Your task to perform on an android device: open app "HBO Max: Stream TV & Movies" (install if not already installed), go to login, and select forgot password Image 0: 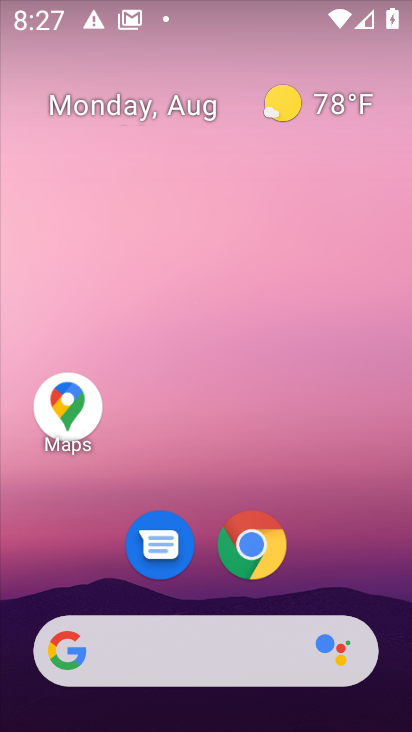
Step 0: press home button
Your task to perform on an android device: open app "HBO Max: Stream TV & Movies" (install if not already installed), go to login, and select forgot password Image 1: 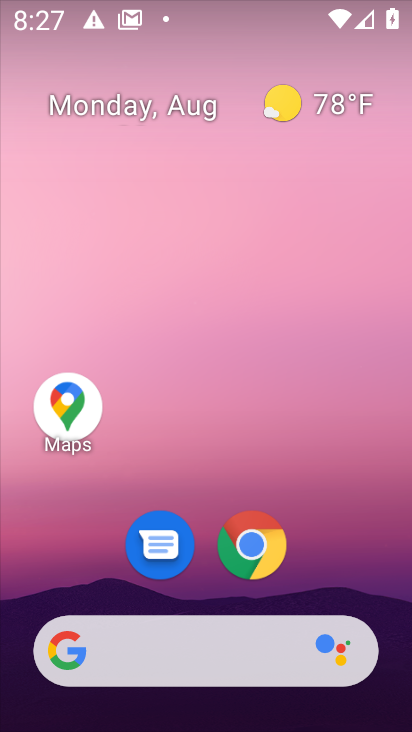
Step 1: drag from (360, 573) to (384, 114)
Your task to perform on an android device: open app "HBO Max: Stream TV & Movies" (install if not already installed), go to login, and select forgot password Image 2: 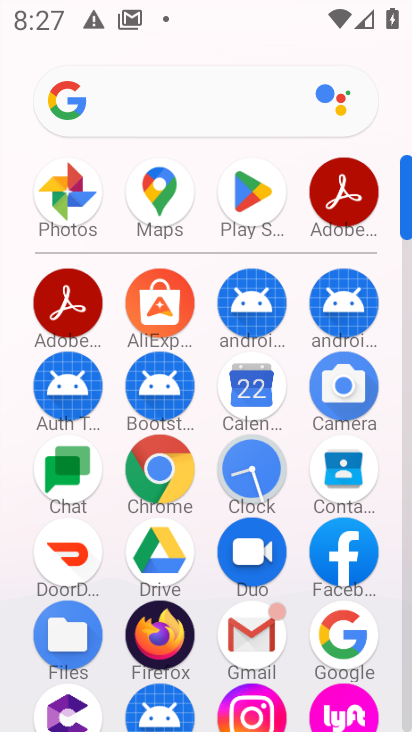
Step 2: click (250, 192)
Your task to perform on an android device: open app "HBO Max: Stream TV & Movies" (install if not already installed), go to login, and select forgot password Image 3: 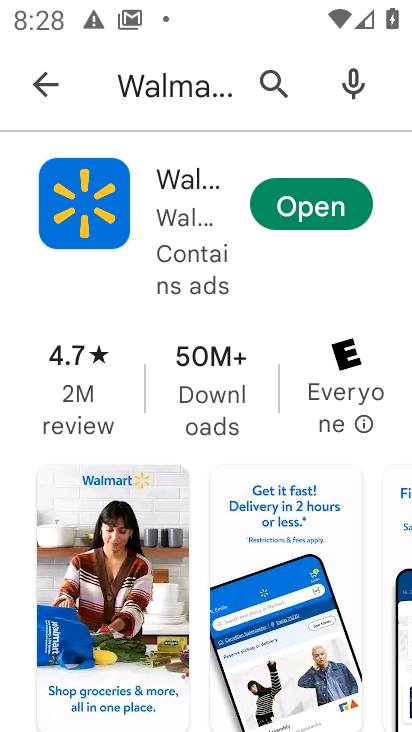
Step 3: press back button
Your task to perform on an android device: open app "HBO Max: Stream TV & Movies" (install if not already installed), go to login, and select forgot password Image 4: 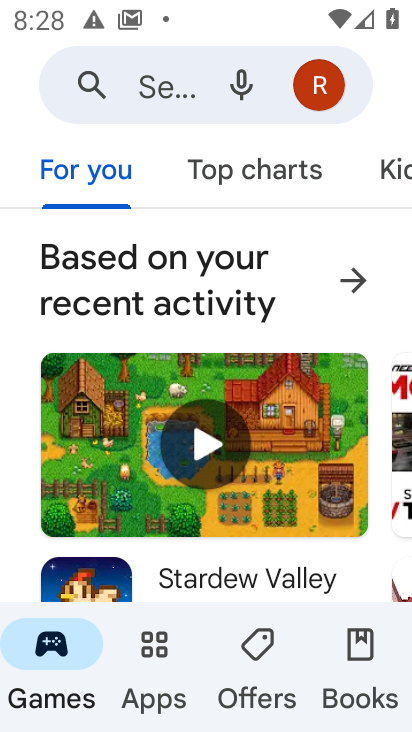
Step 4: click (162, 90)
Your task to perform on an android device: open app "HBO Max: Stream TV & Movies" (install if not already installed), go to login, and select forgot password Image 5: 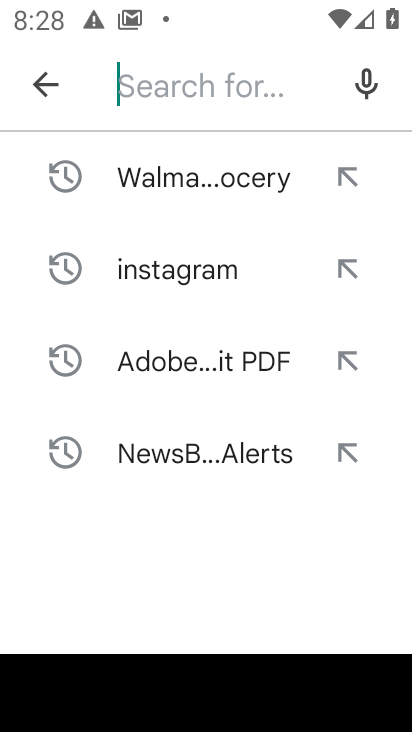
Step 5: type "HBO Max: Stream TV & Movies"
Your task to perform on an android device: open app "HBO Max: Stream TV & Movies" (install if not already installed), go to login, and select forgot password Image 6: 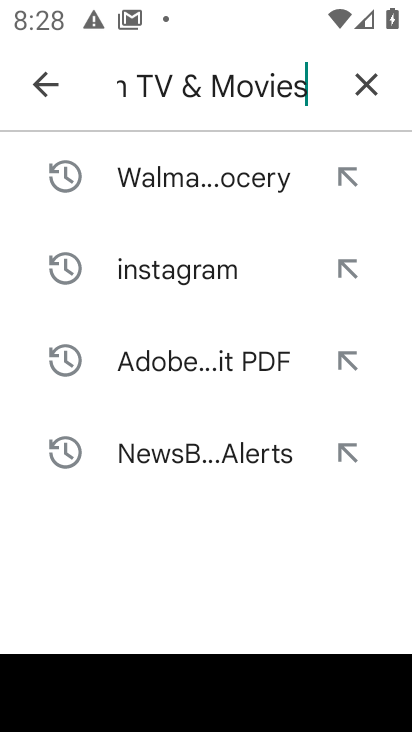
Step 6: press enter
Your task to perform on an android device: open app "HBO Max: Stream TV & Movies" (install if not already installed), go to login, and select forgot password Image 7: 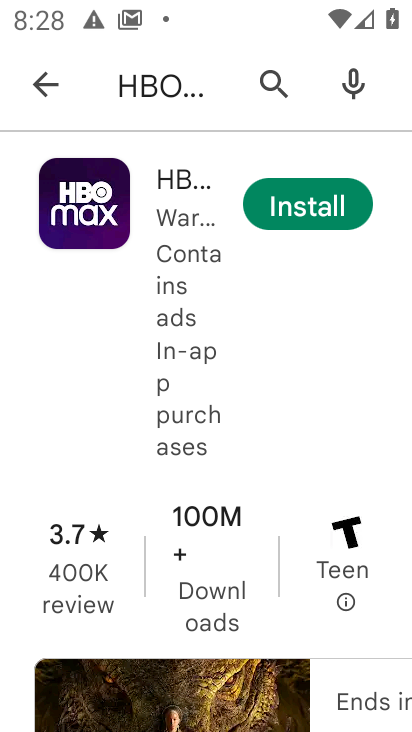
Step 7: click (310, 199)
Your task to perform on an android device: open app "HBO Max: Stream TV & Movies" (install if not already installed), go to login, and select forgot password Image 8: 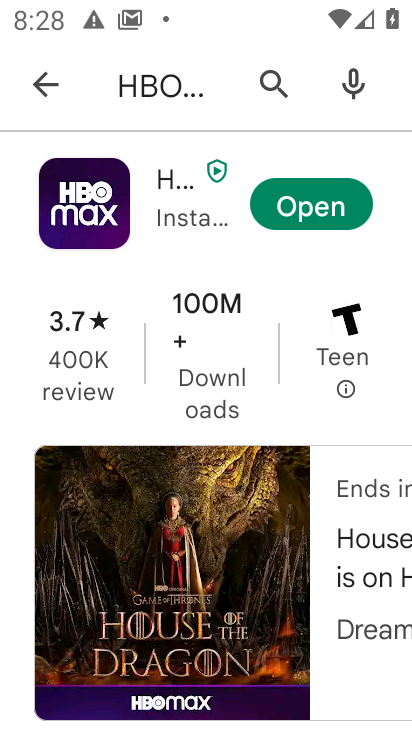
Step 8: click (330, 211)
Your task to perform on an android device: open app "HBO Max: Stream TV & Movies" (install if not already installed), go to login, and select forgot password Image 9: 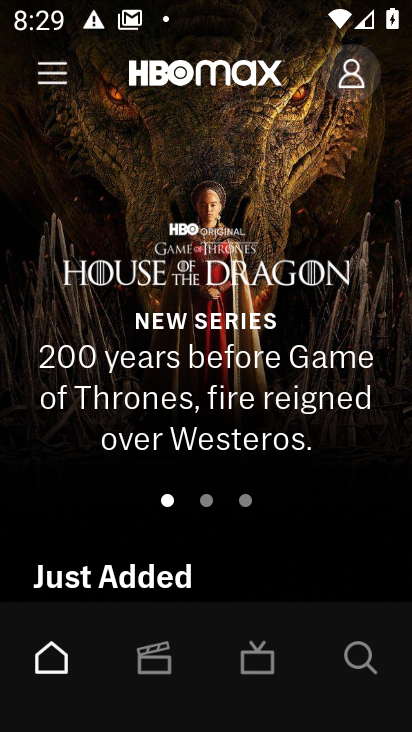
Step 9: click (352, 78)
Your task to perform on an android device: open app "HBO Max: Stream TV & Movies" (install if not already installed), go to login, and select forgot password Image 10: 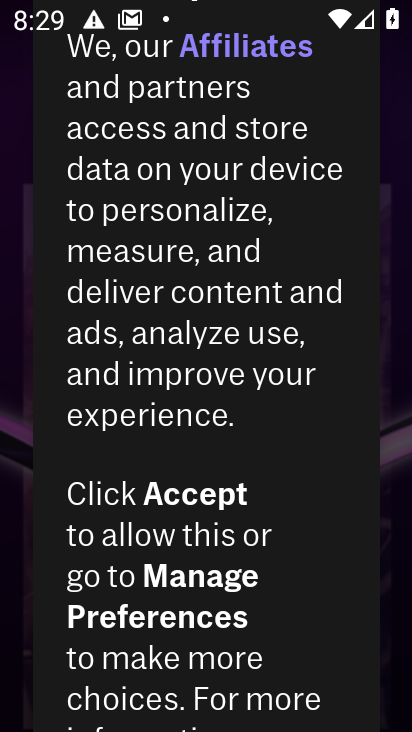
Step 10: task complete